Your task to perform on an android device: open chrome privacy settings Image 0: 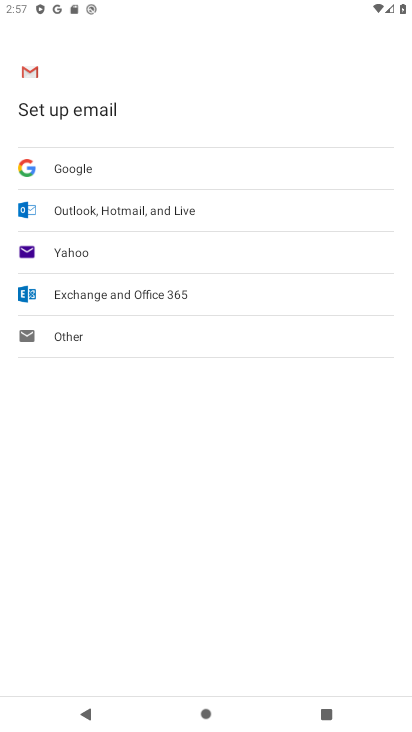
Step 0: press home button
Your task to perform on an android device: open chrome privacy settings Image 1: 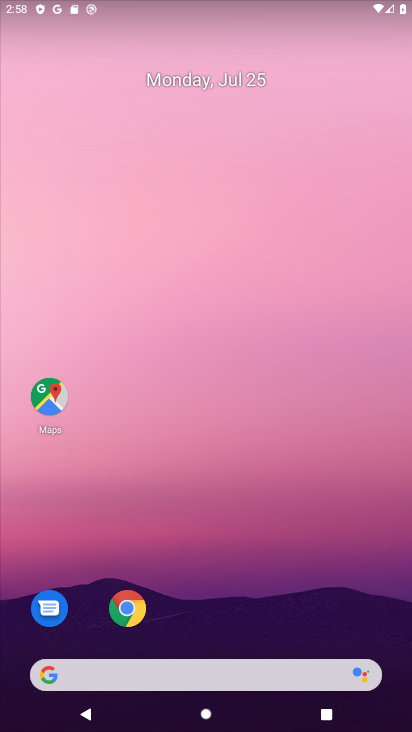
Step 1: click (132, 605)
Your task to perform on an android device: open chrome privacy settings Image 2: 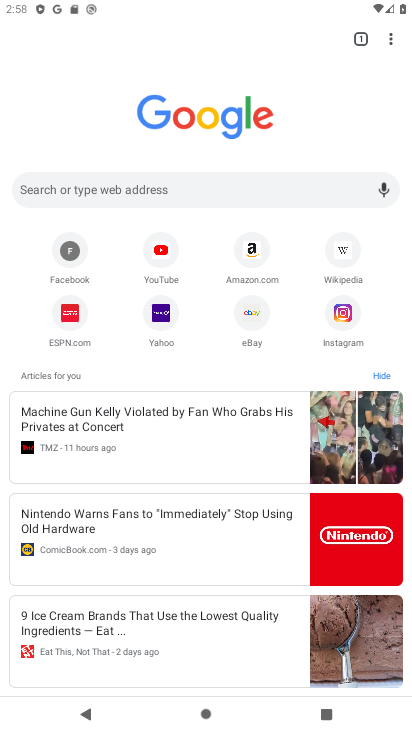
Step 2: click (387, 42)
Your task to perform on an android device: open chrome privacy settings Image 3: 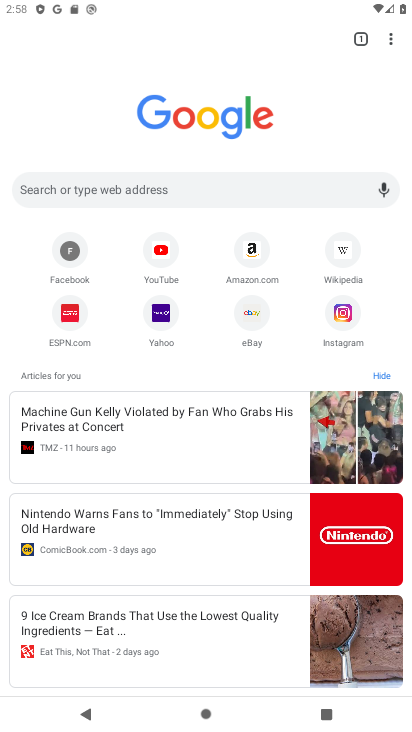
Step 3: click (387, 42)
Your task to perform on an android device: open chrome privacy settings Image 4: 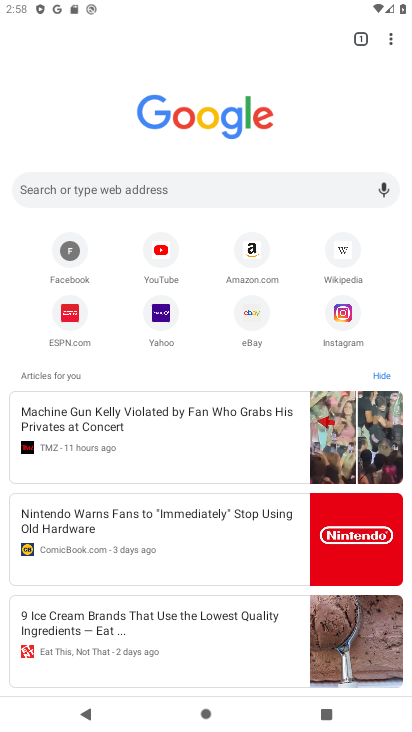
Step 4: click (393, 40)
Your task to perform on an android device: open chrome privacy settings Image 5: 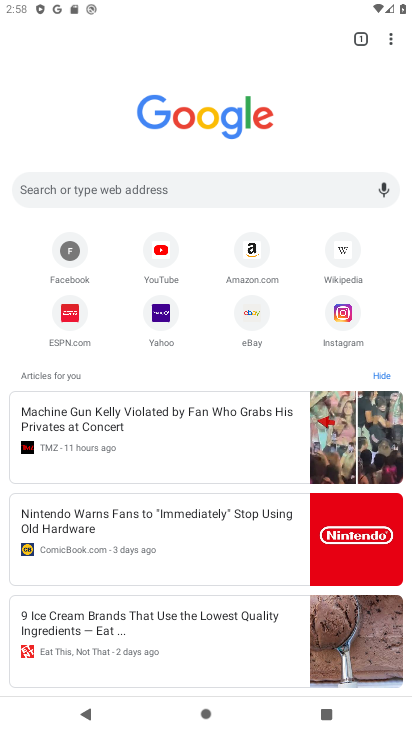
Step 5: click (385, 42)
Your task to perform on an android device: open chrome privacy settings Image 6: 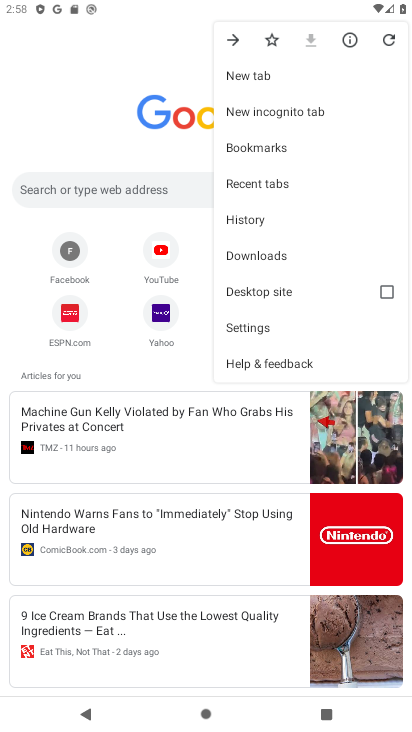
Step 6: click (254, 322)
Your task to perform on an android device: open chrome privacy settings Image 7: 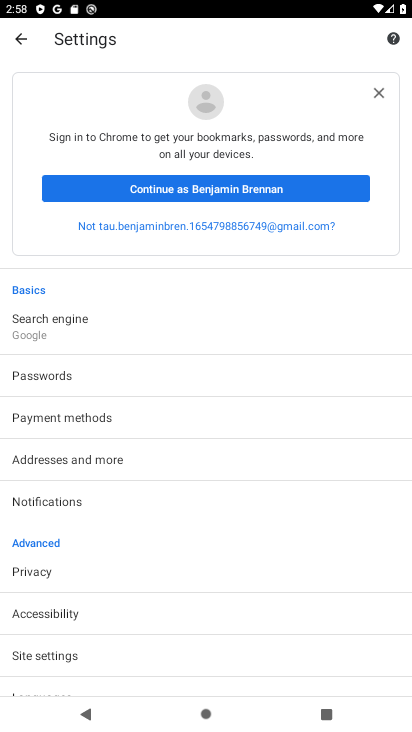
Step 7: click (52, 567)
Your task to perform on an android device: open chrome privacy settings Image 8: 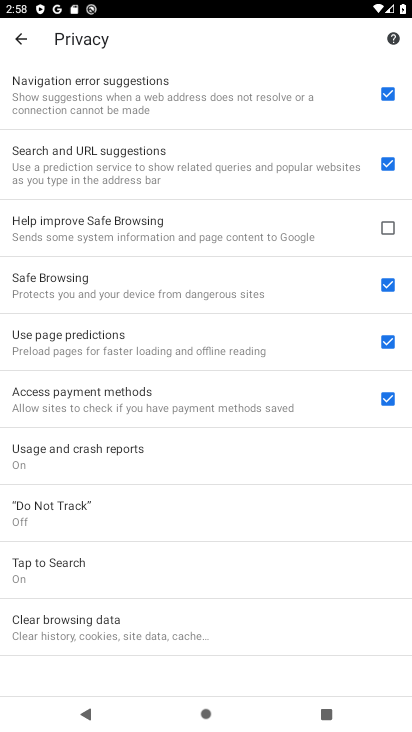
Step 8: task complete